Your task to perform on an android device: Open notification settings Image 0: 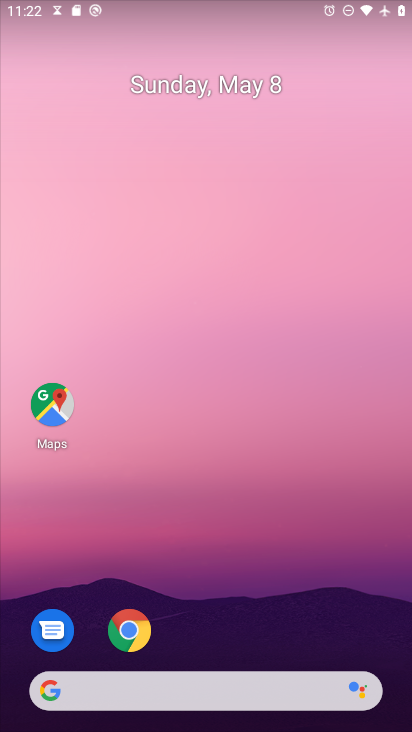
Step 0: drag from (193, 694) to (322, 113)
Your task to perform on an android device: Open notification settings Image 1: 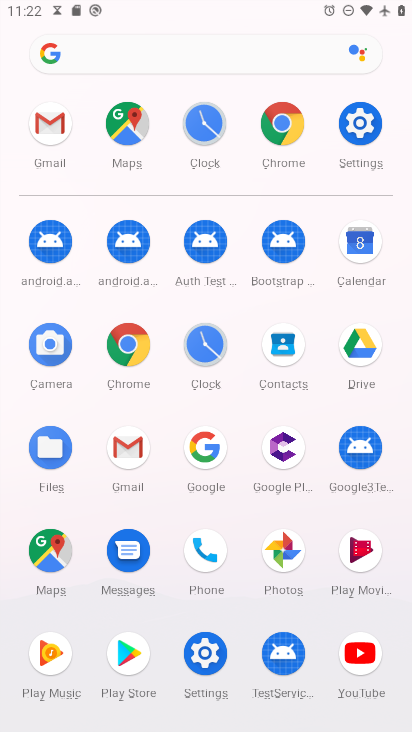
Step 1: click (358, 121)
Your task to perform on an android device: Open notification settings Image 2: 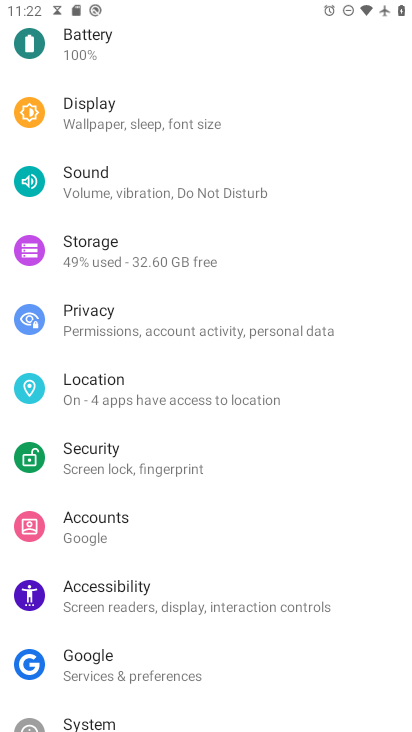
Step 2: drag from (267, 281) to (187, 569)
Your task to perform on an android device: Open notification settings Image 3: 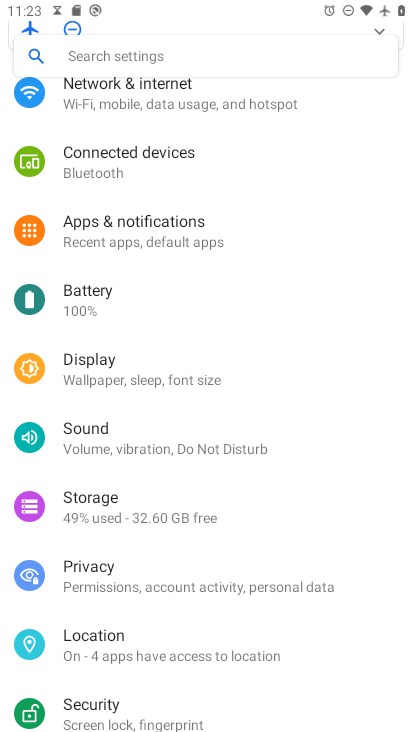
Step 3: click (151, 238)
Your task to perform on an android device: Open notification settings Image 4: 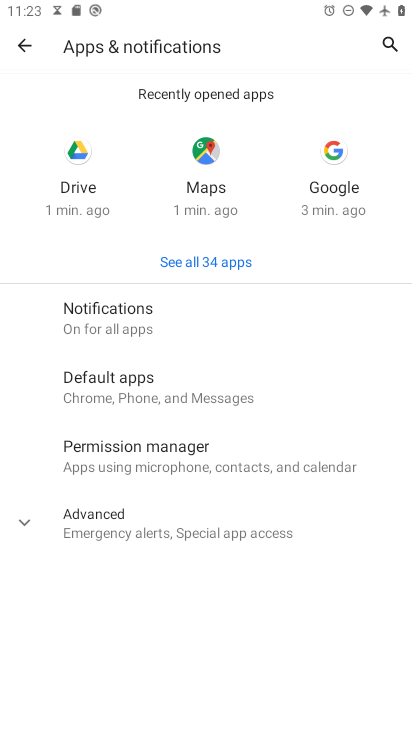
Step 4: click (141, 314)
Your task to perform on an android device: Open notification settings Image 5: 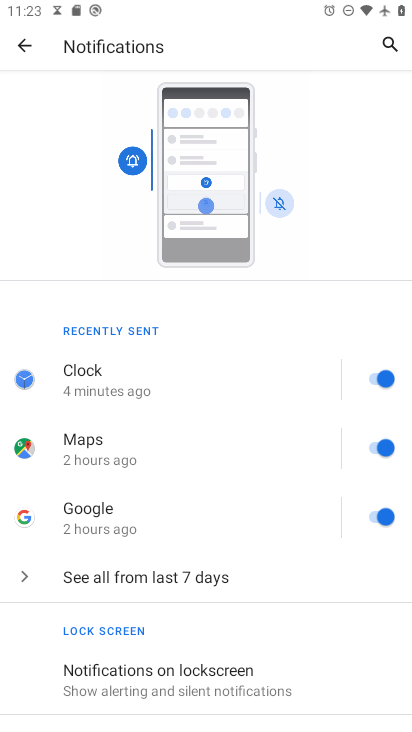
Step 5: task complete